Your task to perform on an android device: View the shopping cart on newegg.com. Search for usb-c to usb-a on newegg.com, select the first entry, and add it to the cart. Image 0: 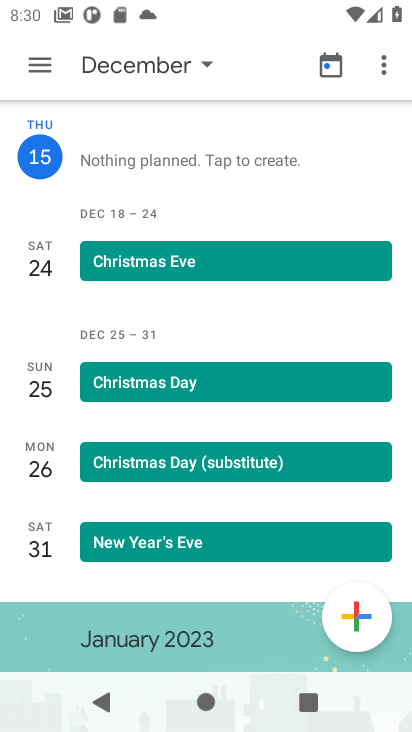
Step 0: press home button
Your task to perform on an android device: View the shopping cart on newegg.com. Search for usb-c to usb-a on newegg.com, select the first entry, and add it to the cart. Image 1: 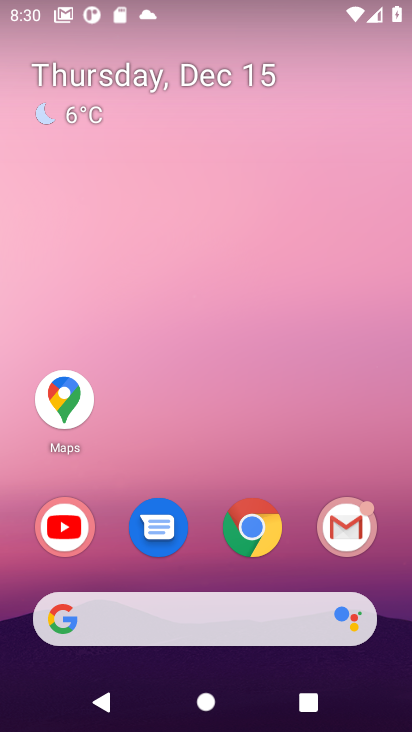
Step 1: click (237, 541)
Your task to perform on an android device: View the shopping cart on newegg.com. Search for usb-c to usb-a on newegg.com, select the first entry, and add it to the cart. Image 2: 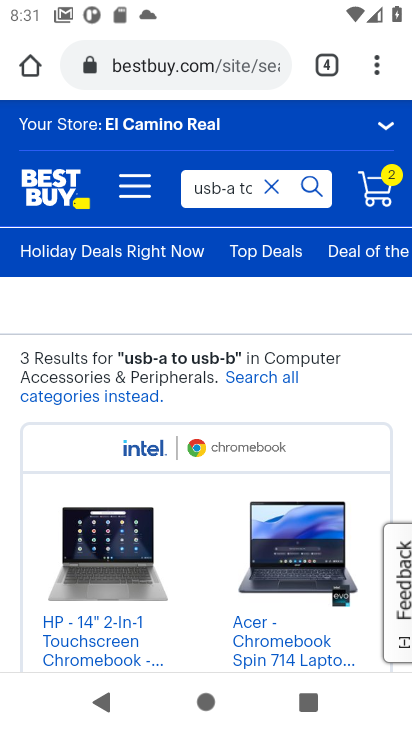
Step 2: click (165, 64)
Your task to perform on an android device: View the shopping cart on newegg.com. Search for usb-c to usb-a on newegg.com, select the first entry, and add it to the cart. Image 3: 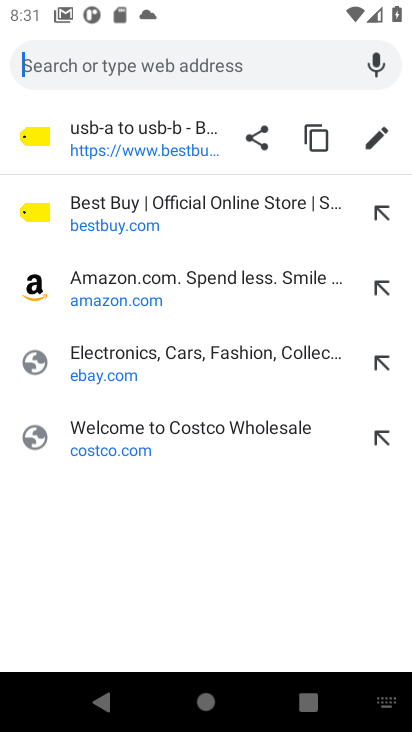
Step 3: type "newegg"
Your task to perform on an android device: View the shopping cart on newegg.com. Search for usb-c to usb-a on newegg.com, select the first entry, and add it to the cart. Image 4: 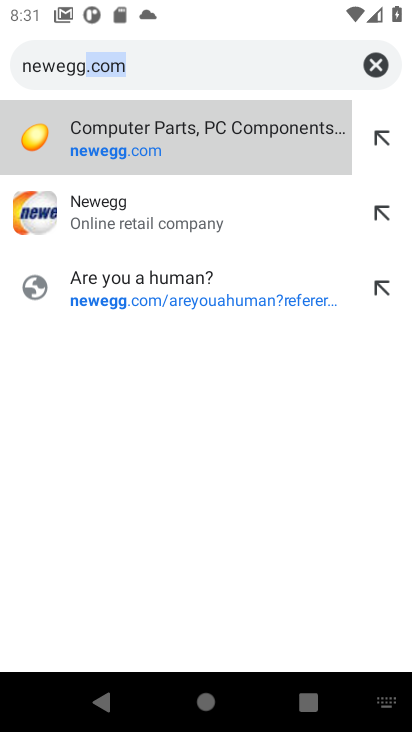
Step 4: click (138, 150)
Your task to perform on an android device: View the shopping cart on newegg.com. Search for usb-c to usb-a on newegg.com, select the first entry, and add it to the cart. Image 5: 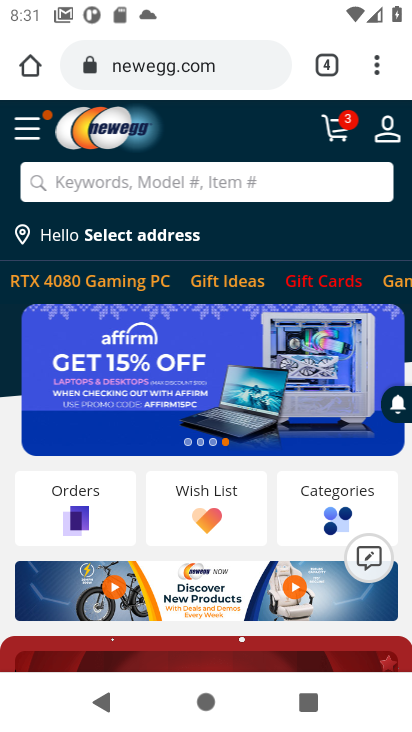
Step 5: click (113, 174)
Your task to perform on an android device: View the shopping cart on newegg.com. Search for usb-c to usb-a on newegg.com, select the first entry, and add it to the cart. Image 6: 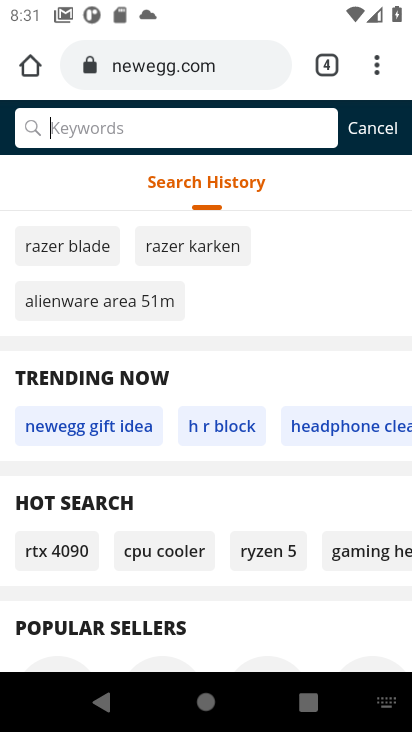
Step 6: type "usb-c to usb-a"
Your task to perform on an android device: View the shopping cart on newegg.com. Search for usb-c to usb-a on newegg.com, select the first entry, and add it to the cart. Image 7: 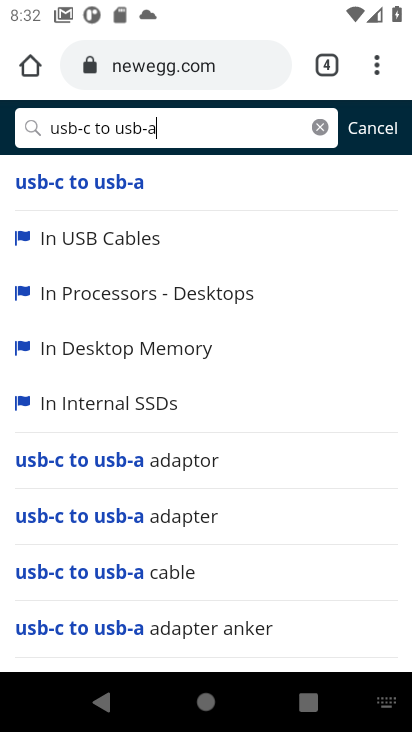
Step 7: click (18, 178)
Your task to perform on an android device: View the shopping cart on newegg.com. Search for usb-c to usb-a on newegg.com, select the first entry, and add it to the cart. Image 8: 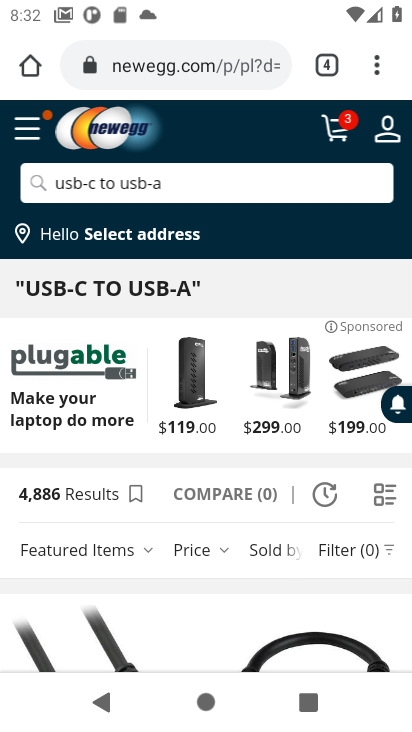
Step 8: click (158, 622)
Your task to perform on an android device: View the shopping cart on newegg.com. Search for usb-c to usb-a on newegg.com, select the first entry, and add it to the cart. Image 9: 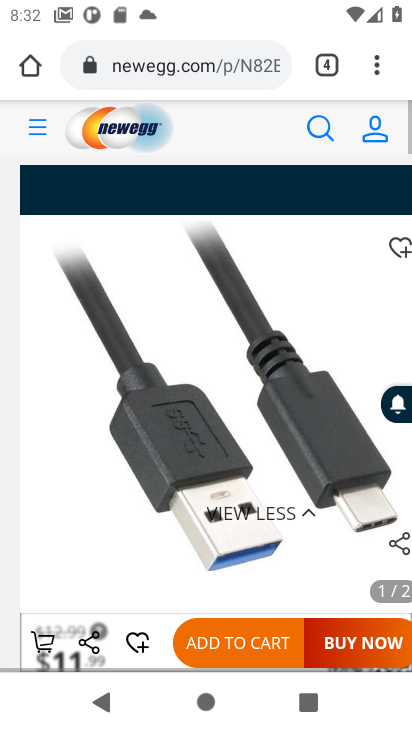
Step 9: click (215, 664)
Your task to perform on an android device: View the shopping cart on newegg.com. Search for usb-c to usb-a on newegg.com, select the first entry, and add it to the cart. Image 10: 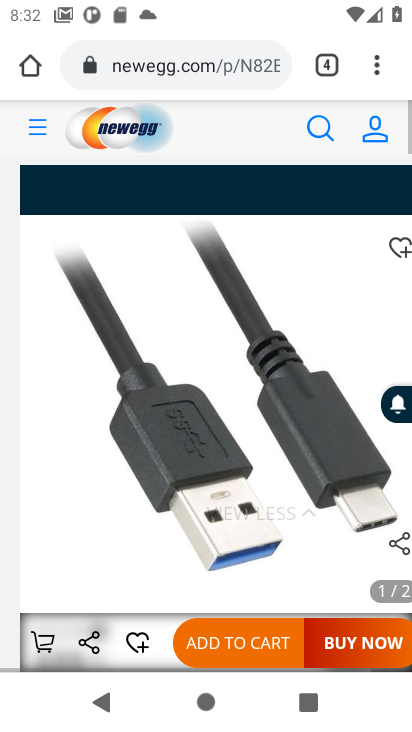
Step 10: click (218, 663)
Your task to perform on an android device: View the shopping cart on newegg.com. Search for usb-c to usb-a on newegg.com, select the first entry, and add it to the cart. Image 11: 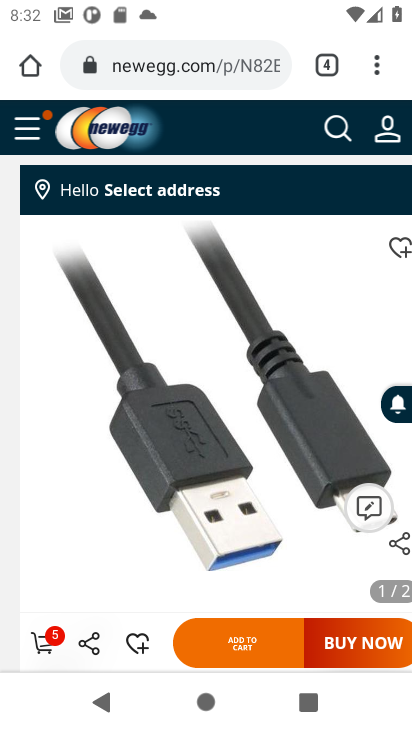
Step 11: task complete